Your task to perform on an android device: Go to wifi settings Image 0: 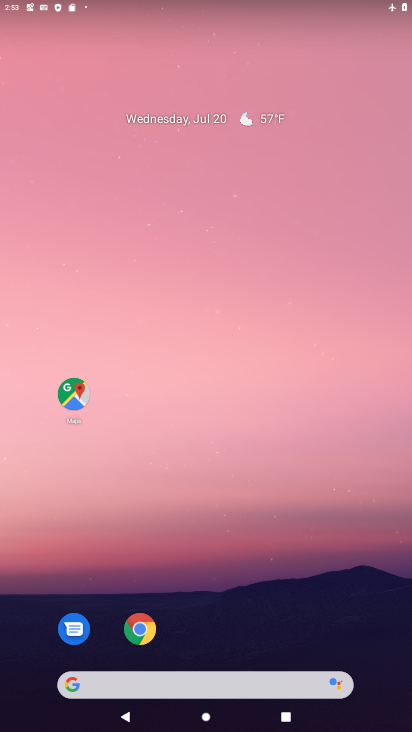
Step 0: drag from (219, 628) to (177, 135)
Your task to perform on an android device: Go to wifi settings Image 1: 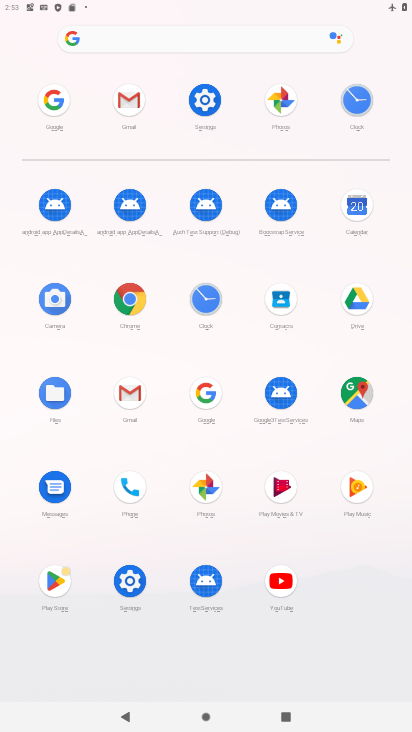
Step 1: click (208, 101)
Your task to perform on an android device: Go to wifi settings Image 2: 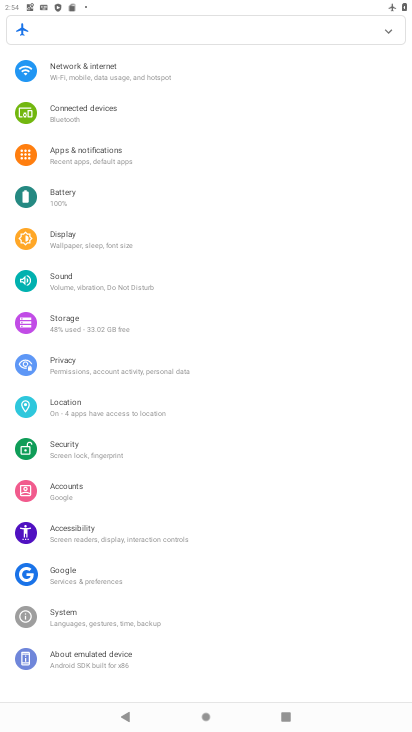
Step 2: click (164, 82)
Your task to perform on an android device: Go to wifi settings Image 3: 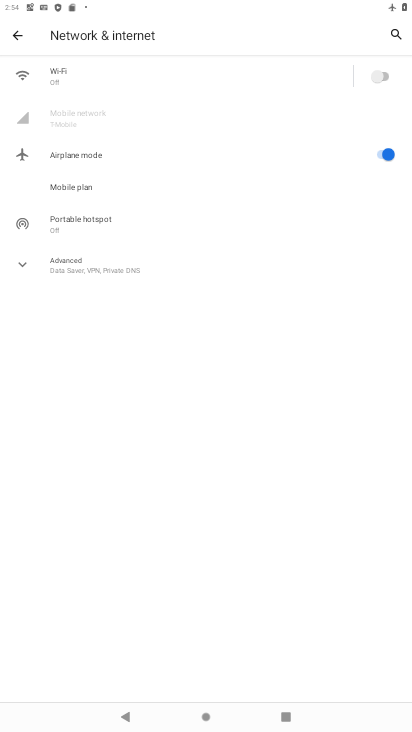
Step 3: click (91, 82)
Your task to perform on an android device: Go to wifi settings Image 4: 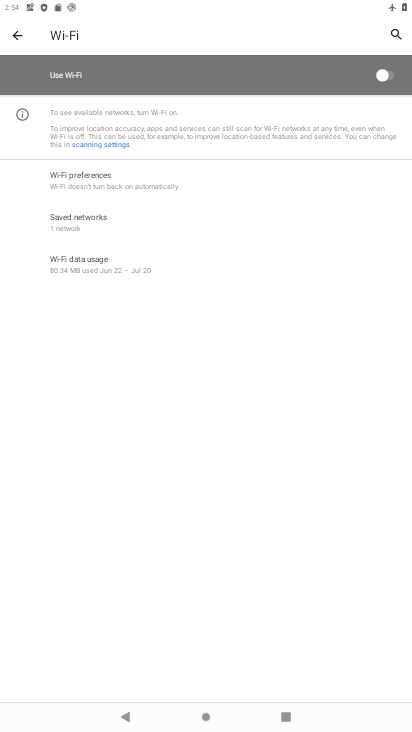
Step 4: task complete